Your task to perform on an android device: open app "Expedia: Hotels, Flights & Car" (install if not already installed) Image 0: 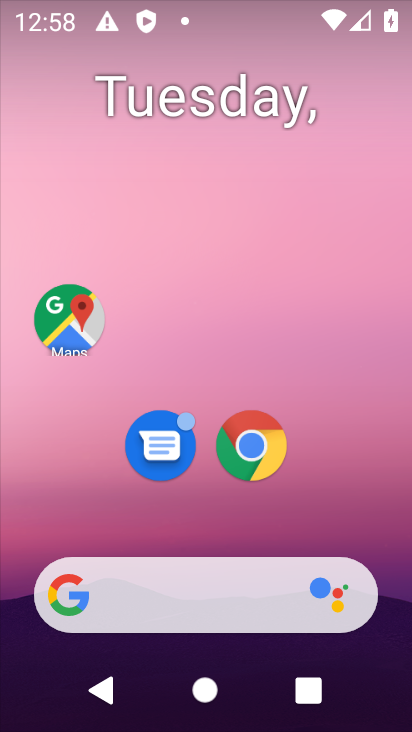
Step 0: drag from (156, 622) to (246, 105)
Your task to perform on an android device: open app "Expedia: Hotels, Flights & Car" (install if not already installed) Image 1: 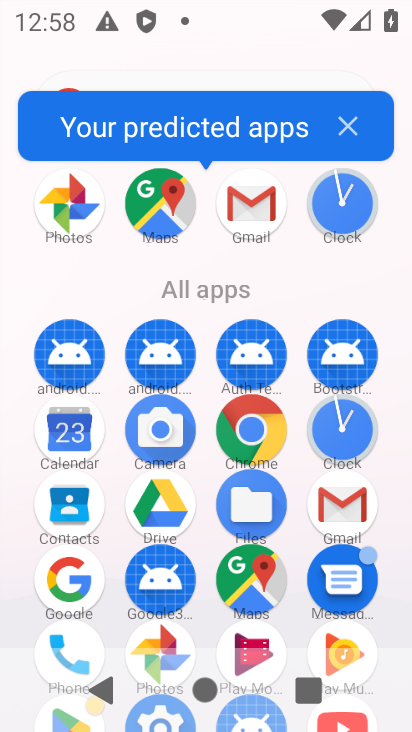
Step 1: drag from (200, 543) to (195, 248)
Your task to perform on an android device: open app "Expedia: Hotels, Flights & Car" (install if not already installed) Image 2: 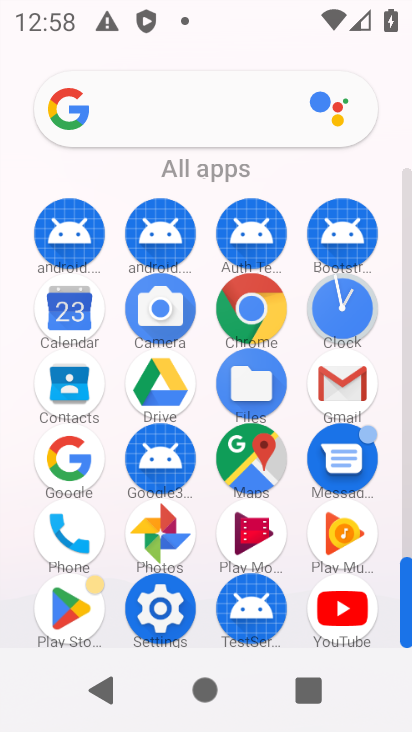
Step 2: click (68, 606)
Your task to perform on an android device: open app "Expedia: Hotels, Flights & Car" (install if not already installed) Image 3: 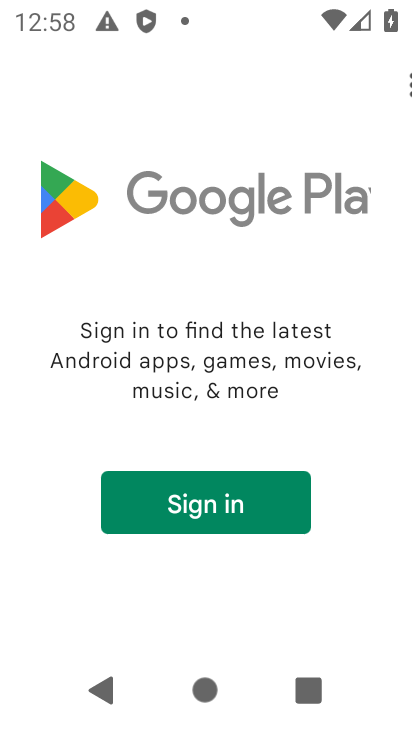
Step 3: press home button
Your task to perform on an android device: open app "Expedia: Hotels, Flights & Car" (install if not already installed) Image 4: 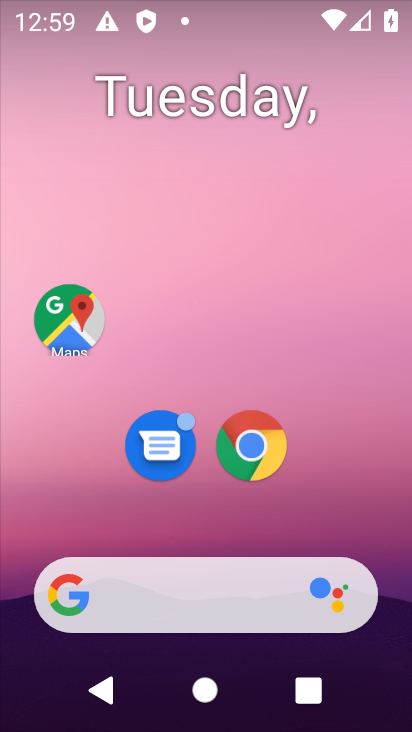
Step 4: drag from (216, 613) to (239, 23)
Your task to perform on an android device: open app "Expedia: Hotels, Flights & Car" (install if not already installed) Image 5: 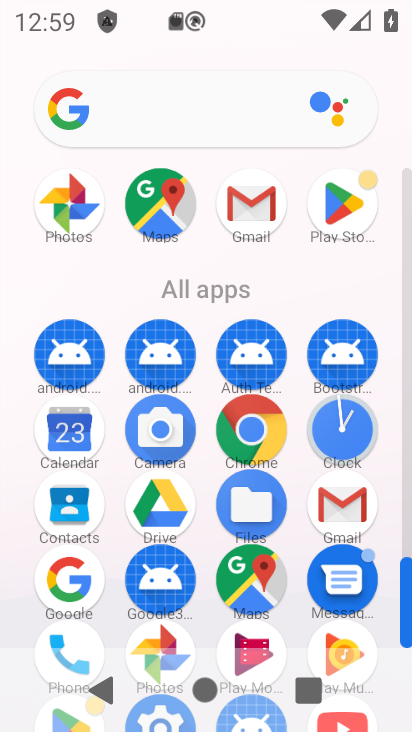
Step 5: click (345, 210)
Your task to perform on an android device: open app "Expedia: Hotels, Flights & Car" (install if not already installed) Image 6: 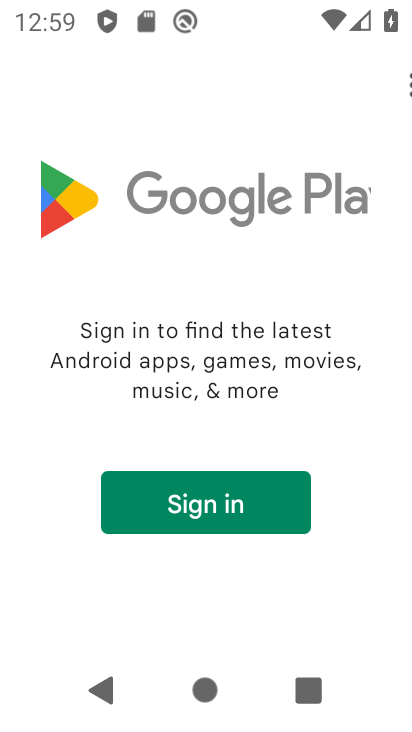
Step 6: click (225, 498)
Your task to perform on an android device: open app "Expedia: Hotels, Flights & Car" (install if not already installed) Image 7: 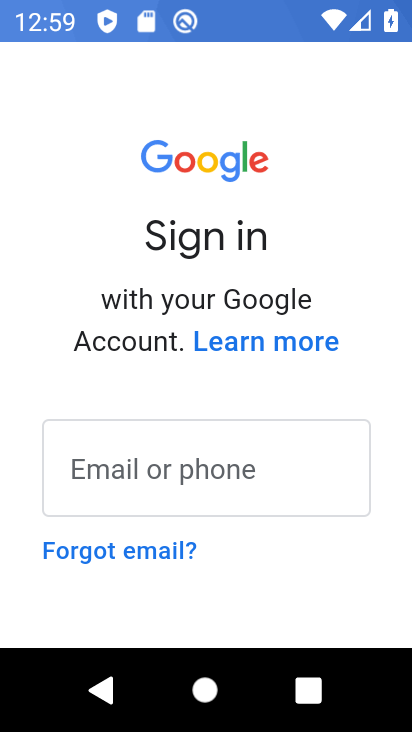
Step 7: task complete